Your task to perform on an android device: toggle translation in the chrome app Image 0: 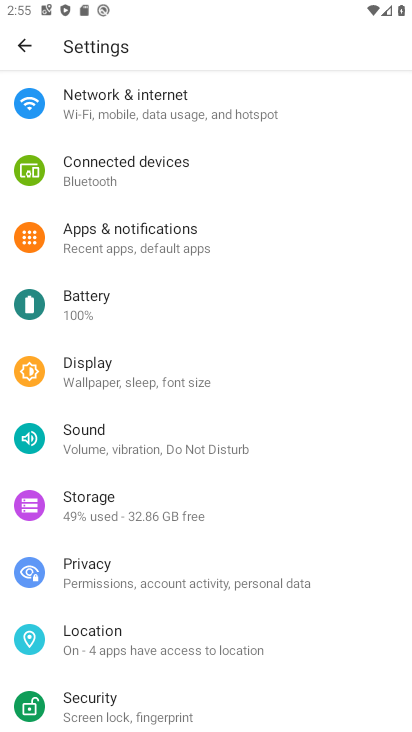
Step 0: press home button
Your task to perform on an android device: toggle translation in the chrome app Image 1: 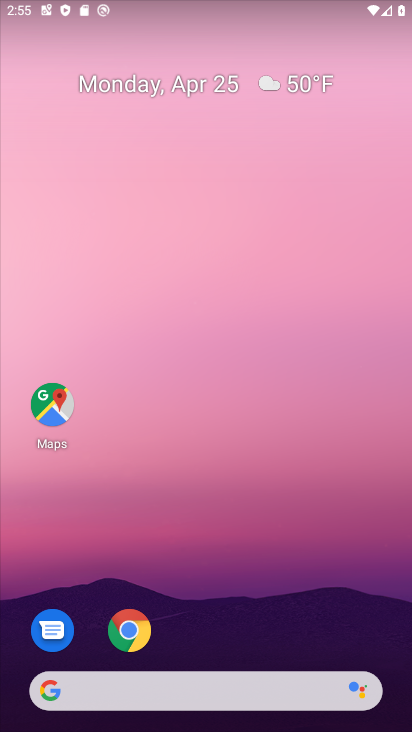
Step 1: click (126, 620)
Your task to perform on an android device: toggle translation in the chrome app Image 2: 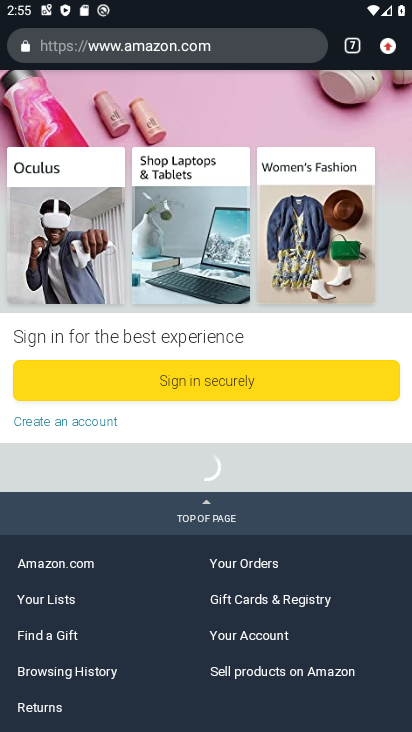
Step 2: drag from (386, 47) to (229, 606)
Your task to perform on an android device: toggle translation in the chrome app Image 3: 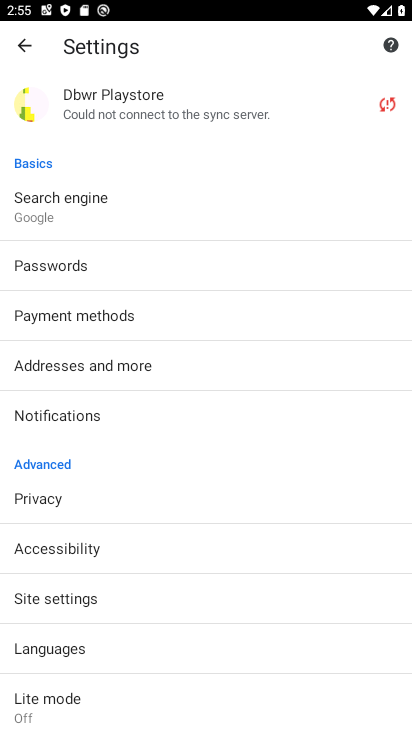
Step 3: click (52, 651)
Your task to perform on an android device: toggle translation in the chrome app Image 4: 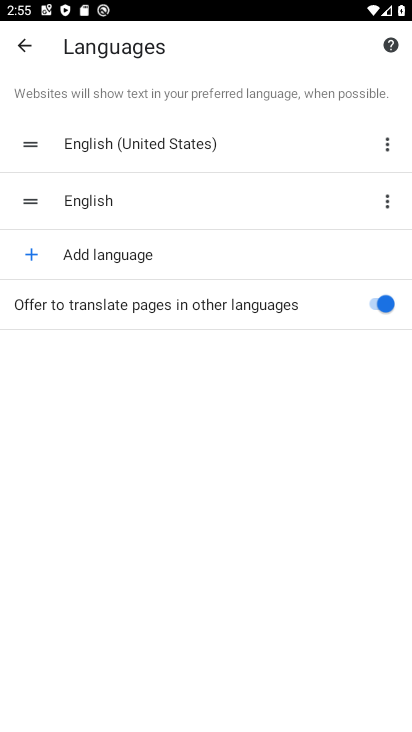
Step 4: click (384, 304)
Your task to perform on an android device: toggle translation in the chrome app Image 5: 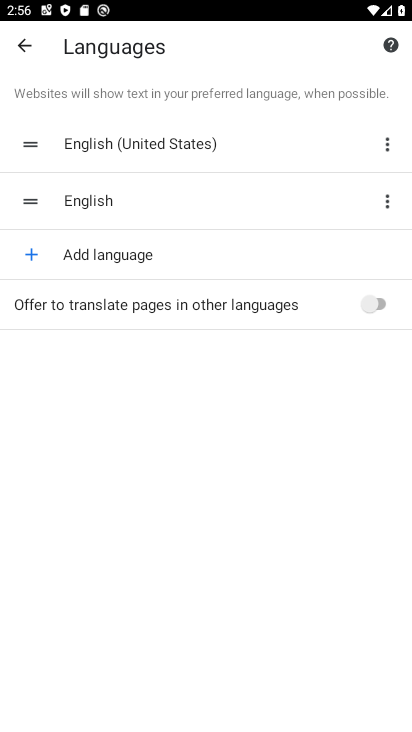
Step 5: task complete